Your task to perform on an android device: turn off location Image 0: 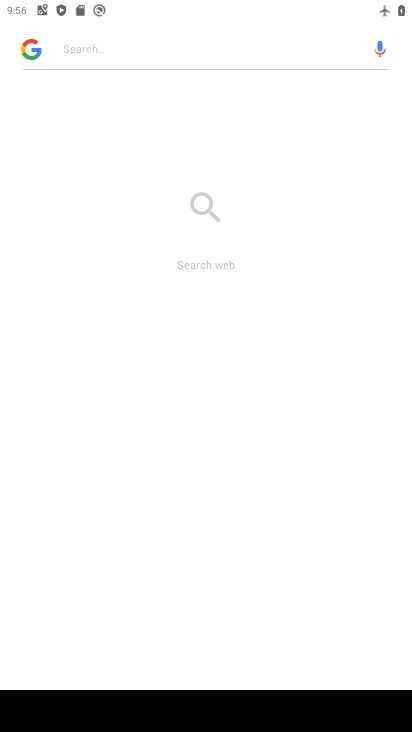
Step 0: press home button
Your task to perform on an android device: turn off location Image 1: 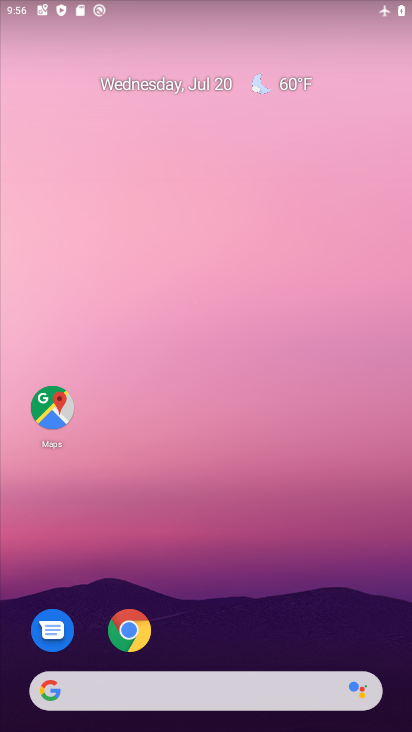
Step 1: drag from (148, 684) to (154, 148)
Your task to perform on an android device: turn off location Image 2: 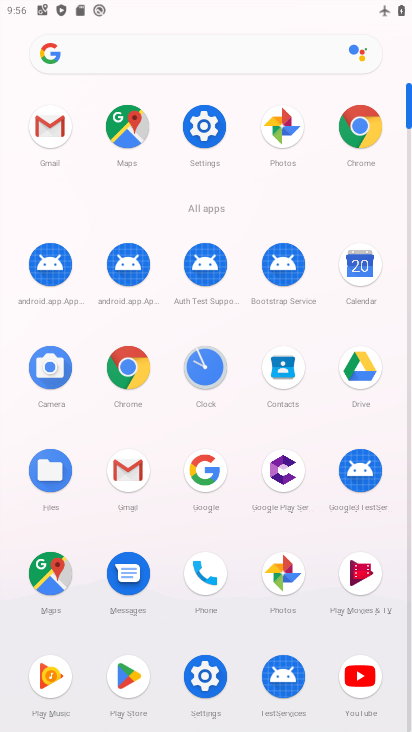
Step 2: click (201, 669)
Your task to perform on an android device: turn off location Image 3: 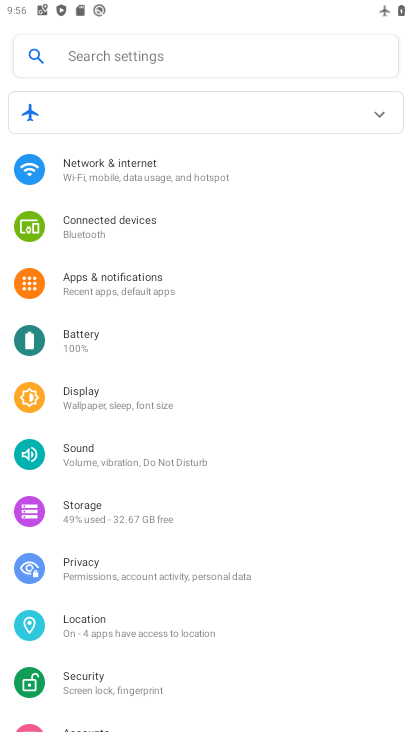
Step 3: click (97, 624)
Your task to perform on an android device: turn off location Image 4: 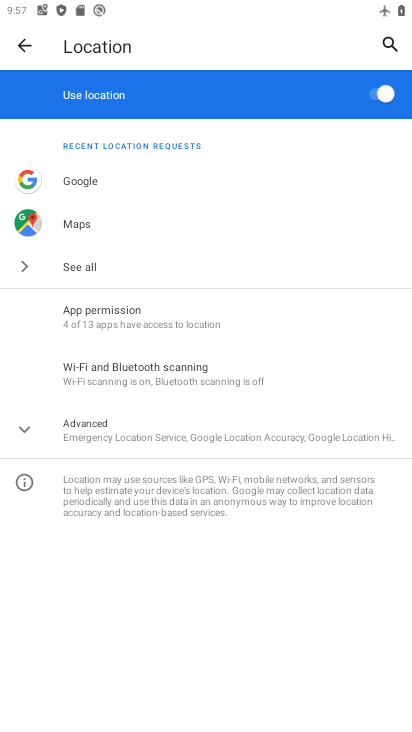
Step 4: click (384, 85)
Your task to perform on an android device: turn off location Image 5: 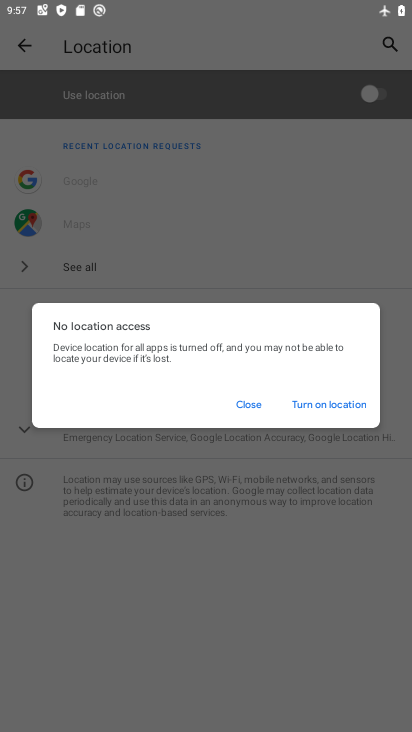
Step 5: click (253, 410)
Your task to perform on an android device: turn off location Image 6: 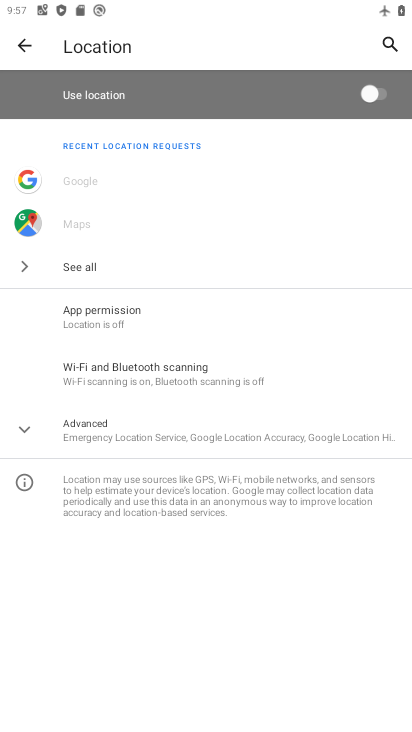
Step 6: task complete